Your task to perform on an android device: open app "Grab" Image 0: 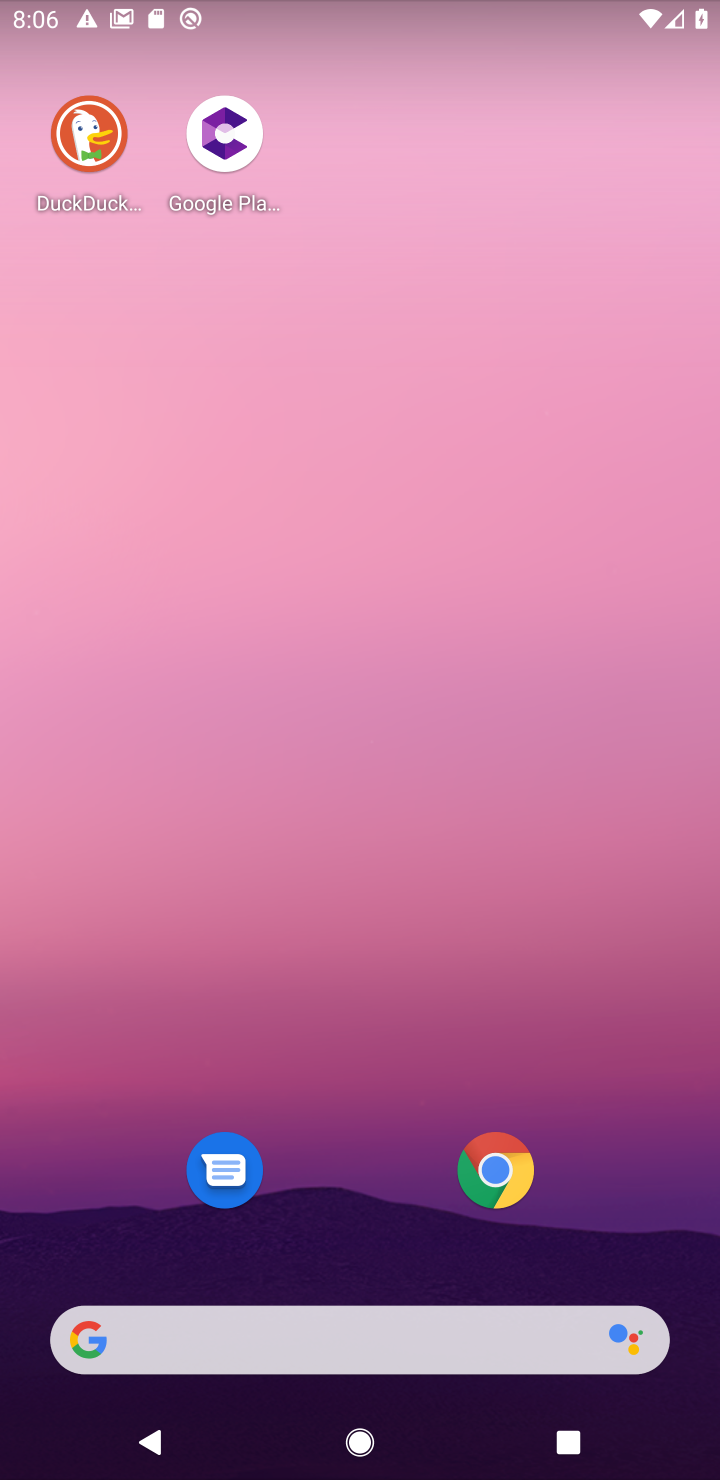
Step 0: drag from (634, 1065) to (561, 362)
Your task to perform on an android device: open app "Grab" Image 1: 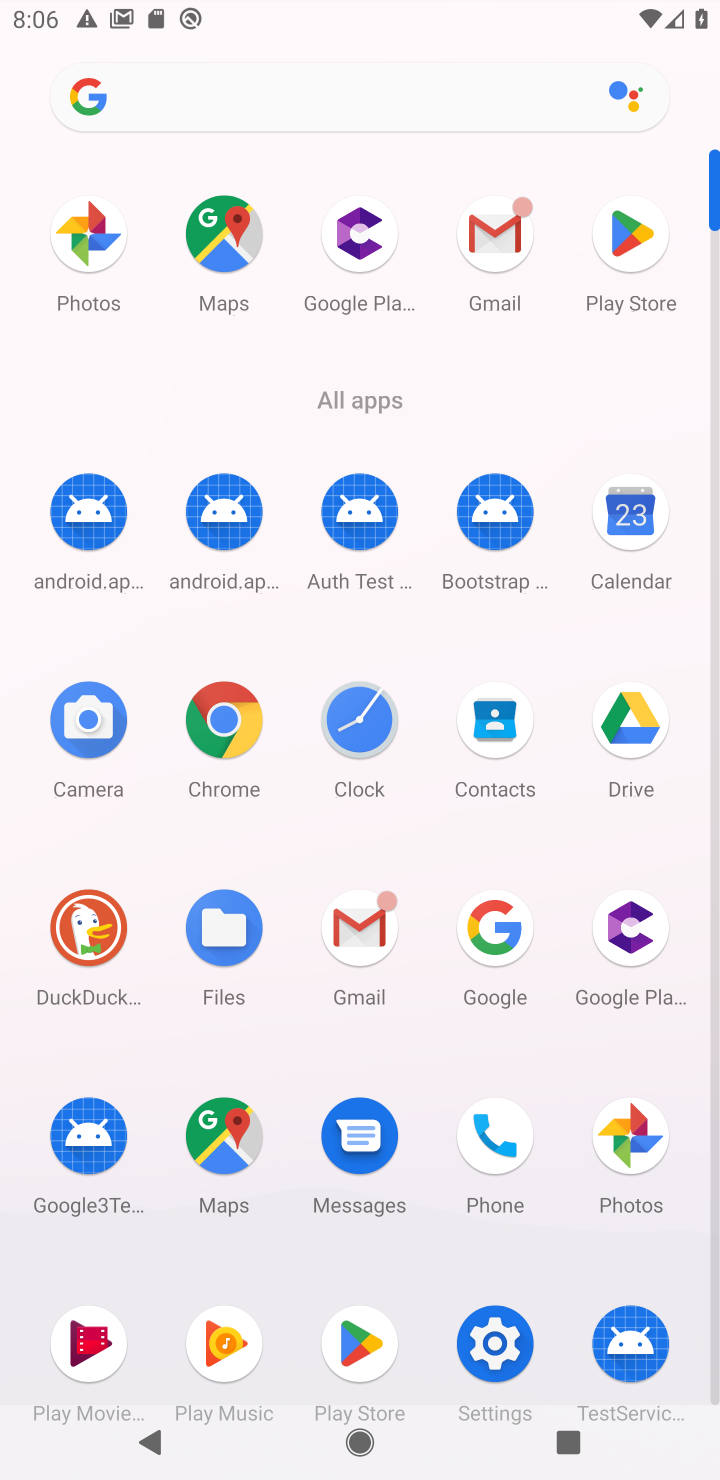
Step 1: click (358, 1351)
Your task to perform on an android device: open app "Grab" Image 2: 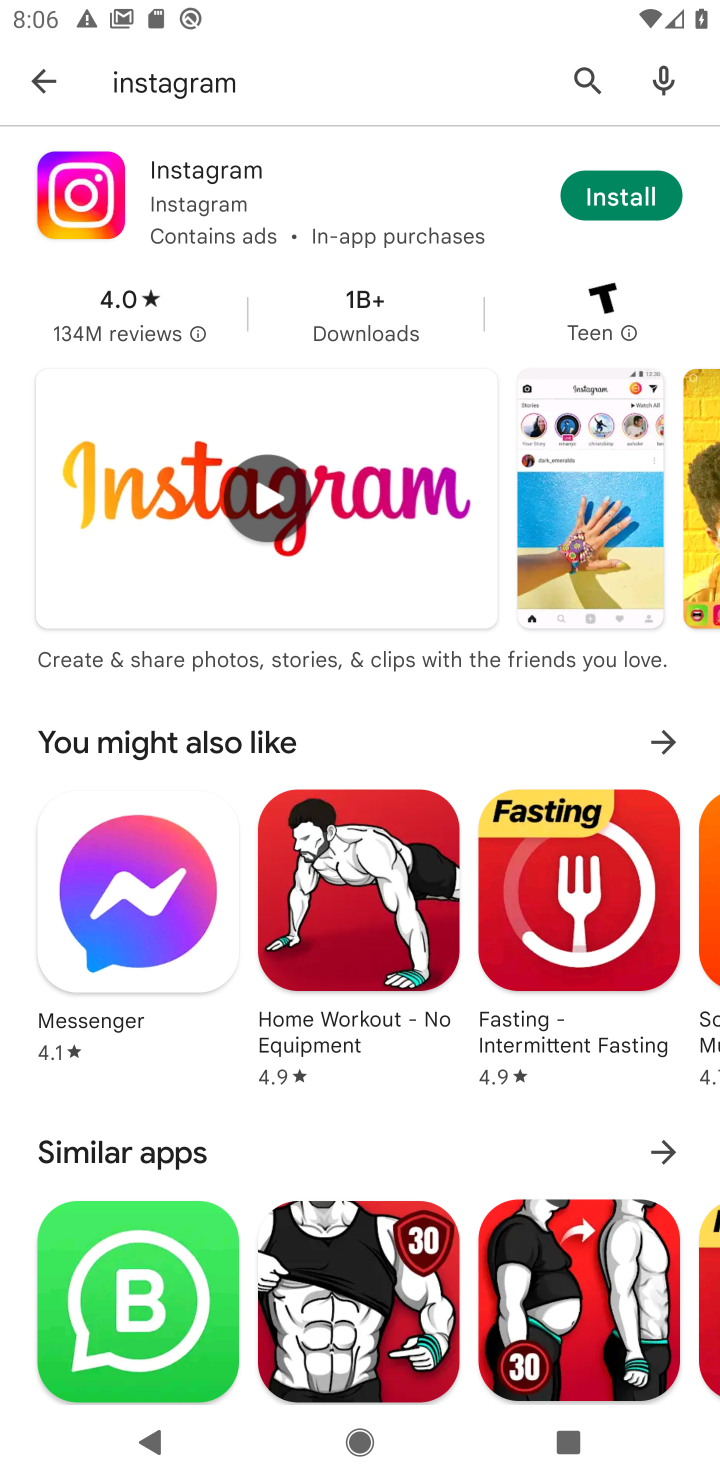
Step 2: click (575, 87)
Your task to perform on an android device: open app "Grab" Image 3: 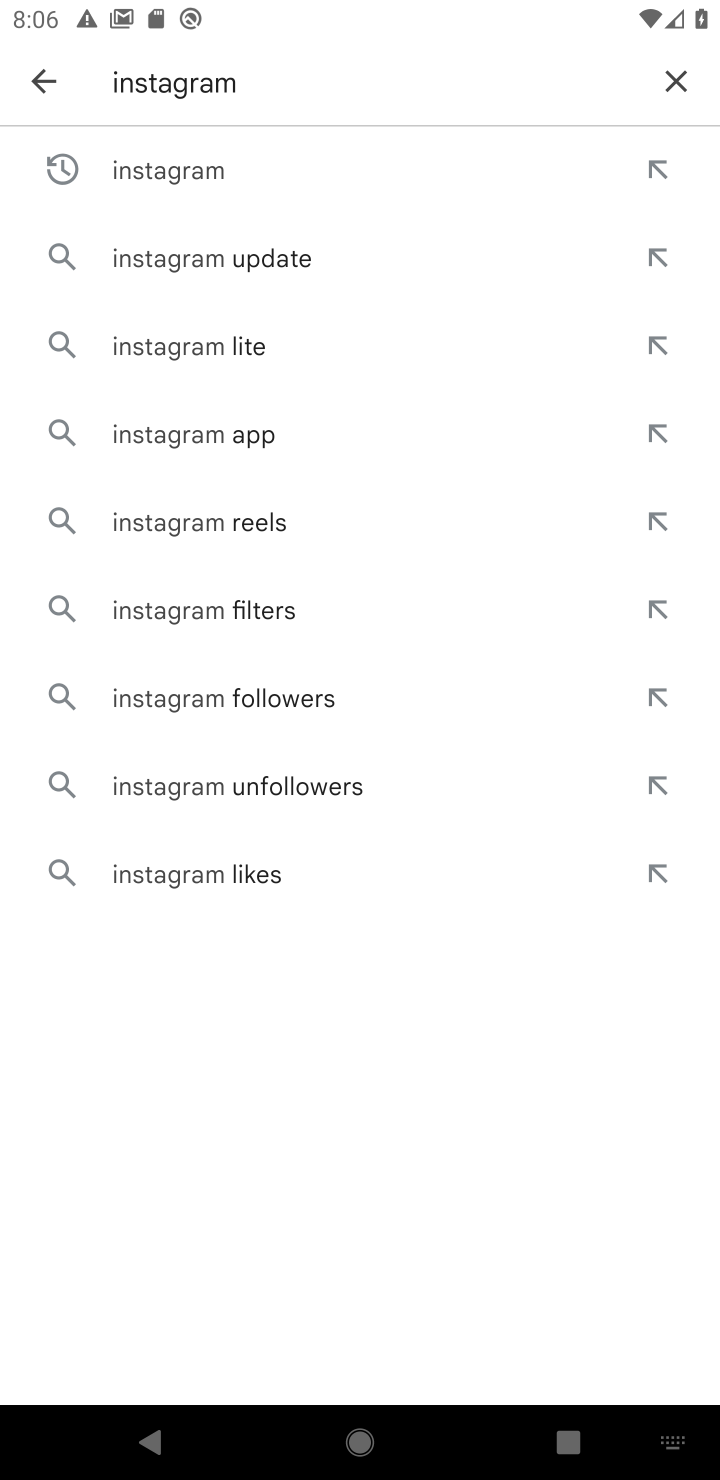
Step 3: click (669, 83)
Your task to perform on an android device: open app "Grab" Image 4: 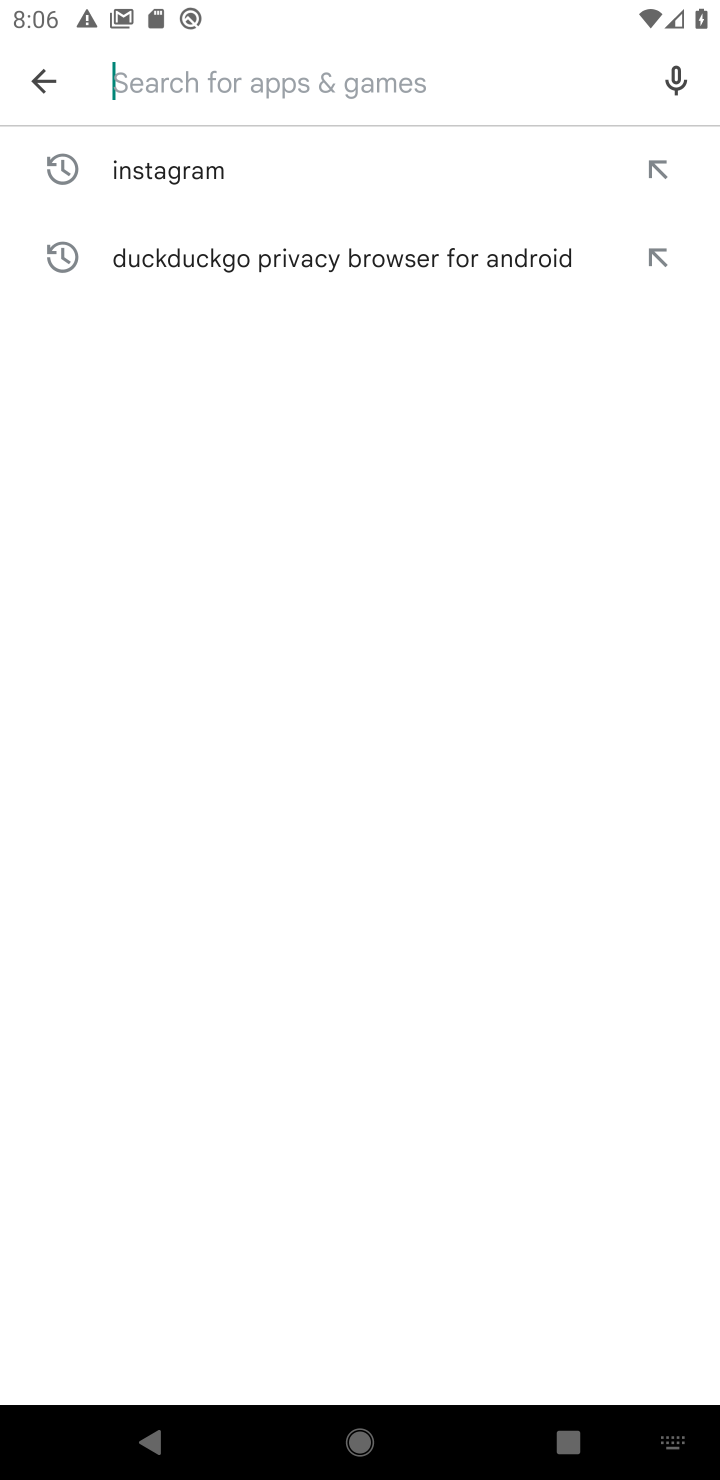
Step 4: click (596, 1071)
Your task to perform on an android device: open app "Grab" Image 5: 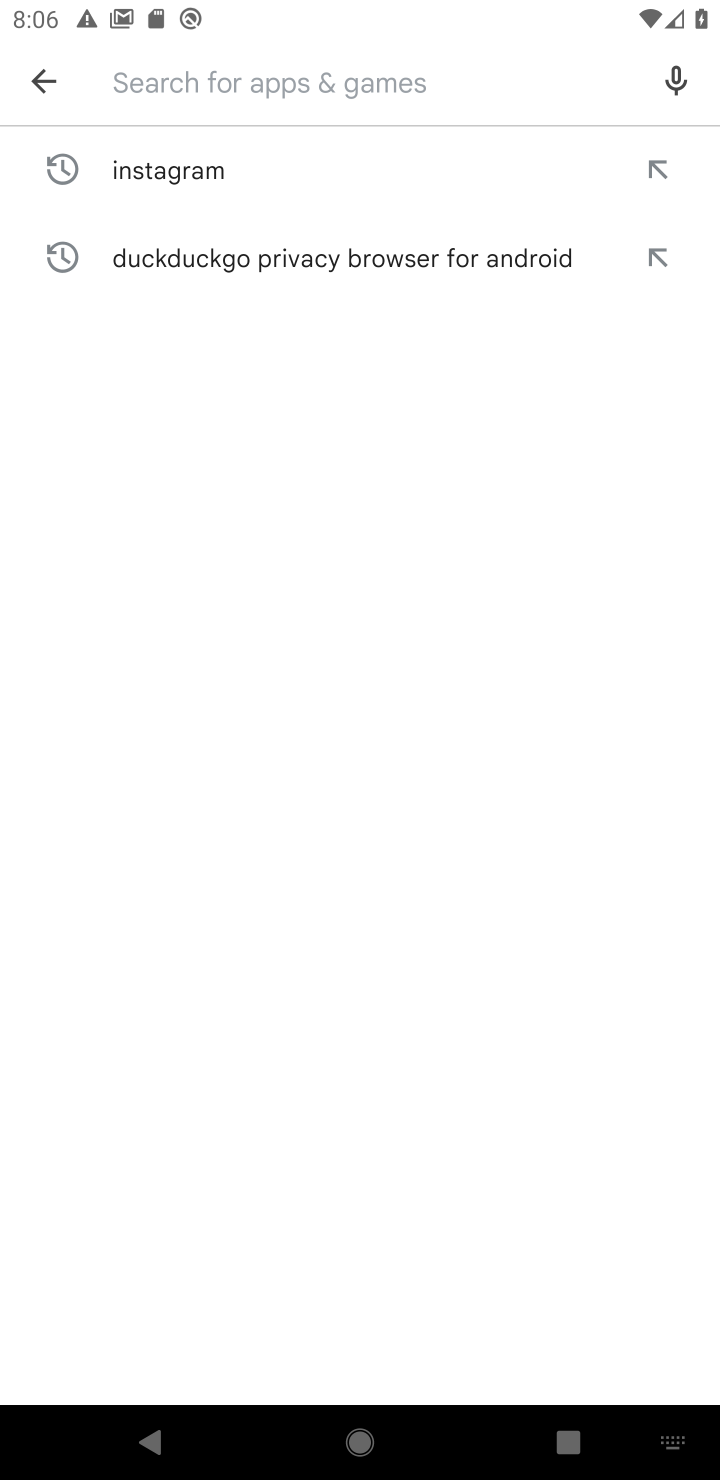
Step 5: type "Grab"
Your task to perform on an android device: open app "Grab" Image 6: 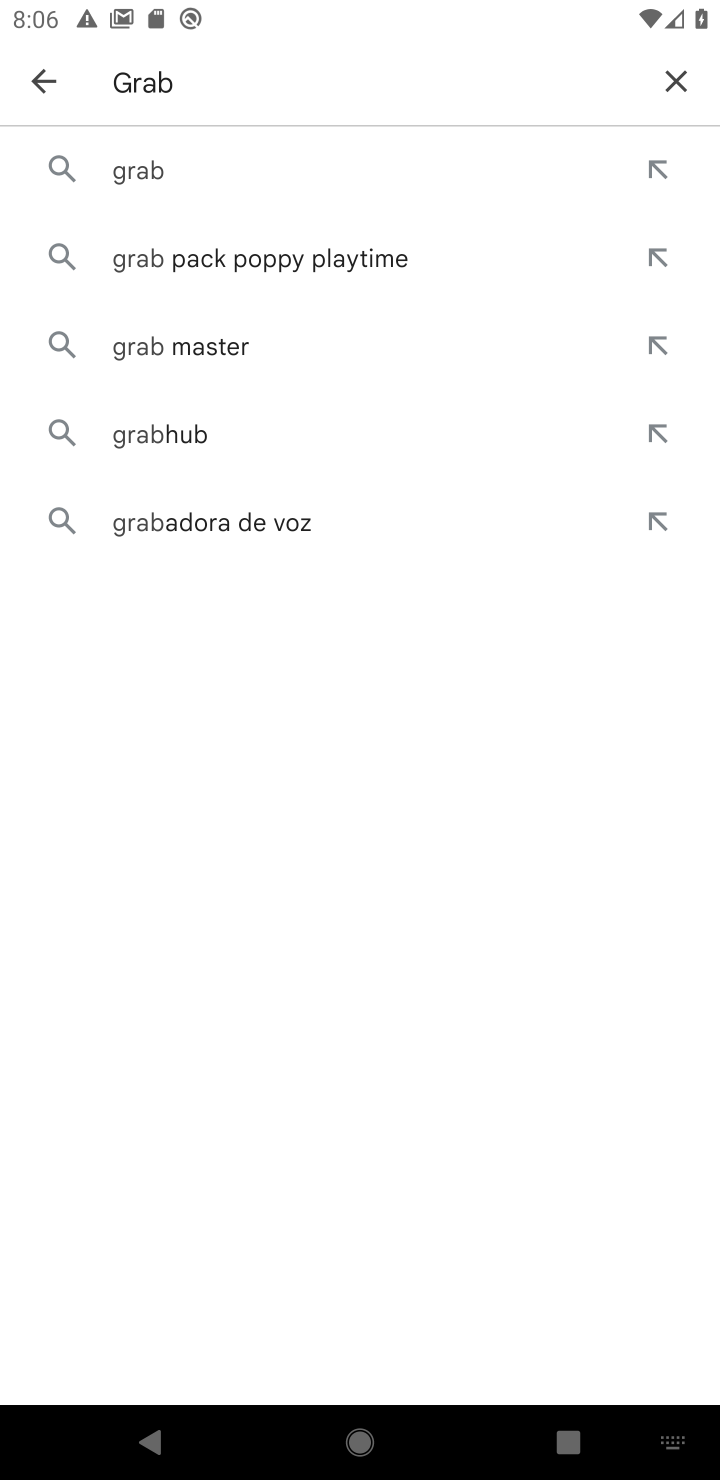
Step 6: click (126, 154)
Your task to perform on an android device: open app "Grab" Image 7: 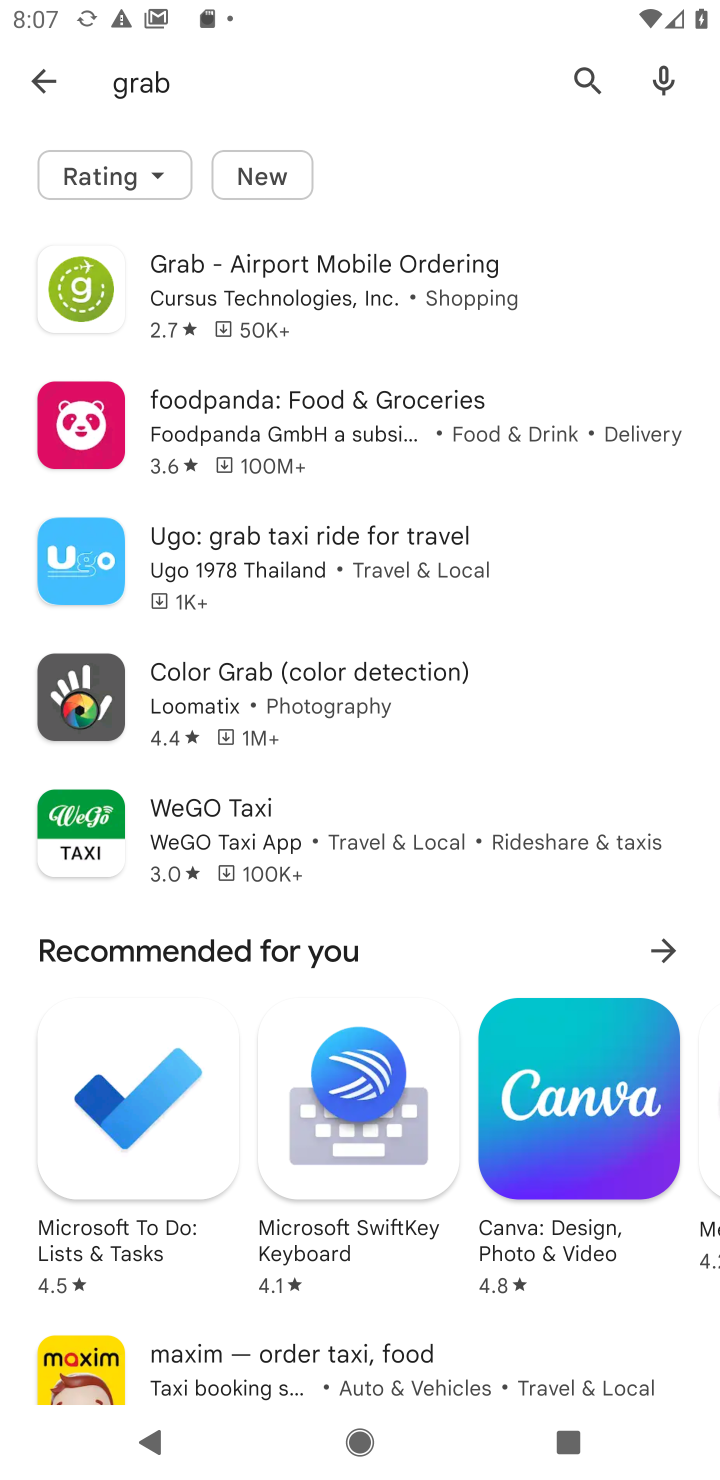
Step 7: click (220, 279)
Your task to perform on an android device: open app "Grab" Image 8: 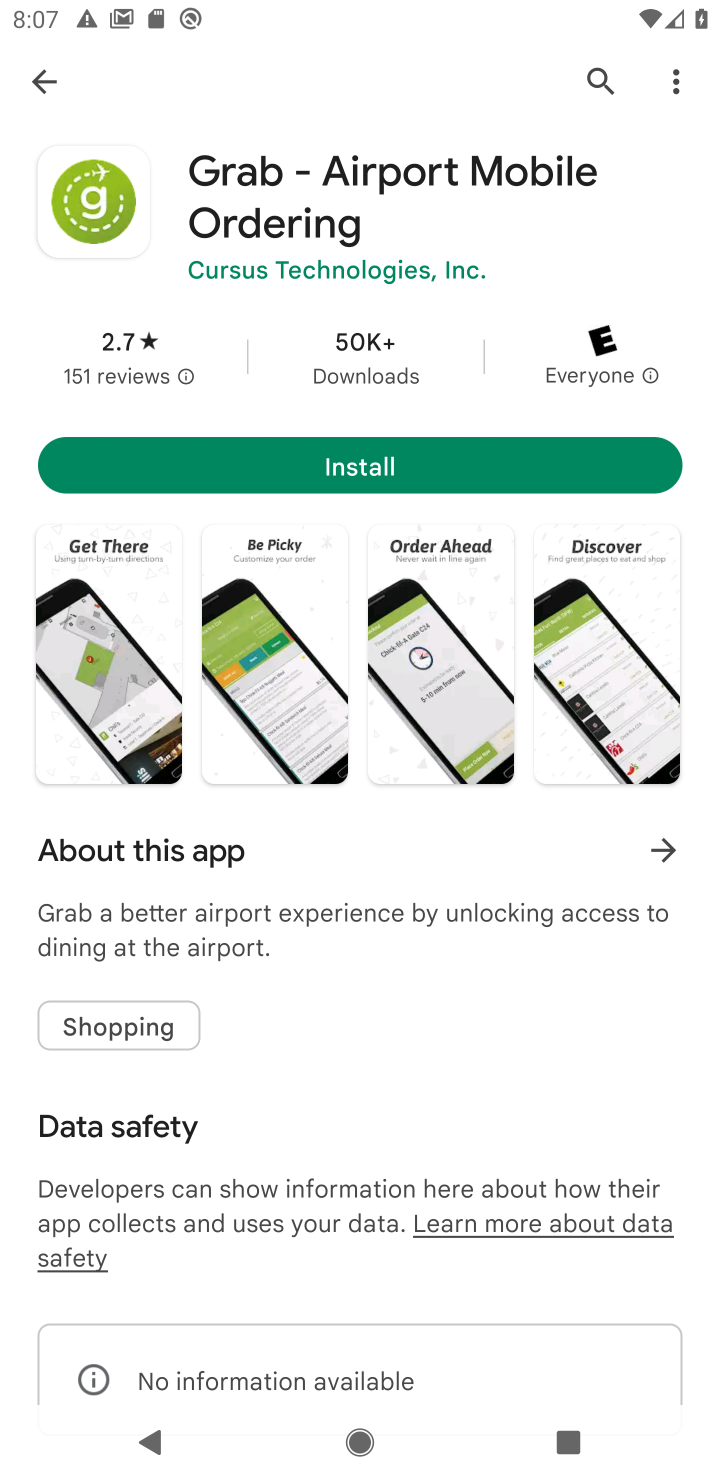
Step 8: task complete